Your task to perform on an android device: uninstall "Google Home" Image 0: 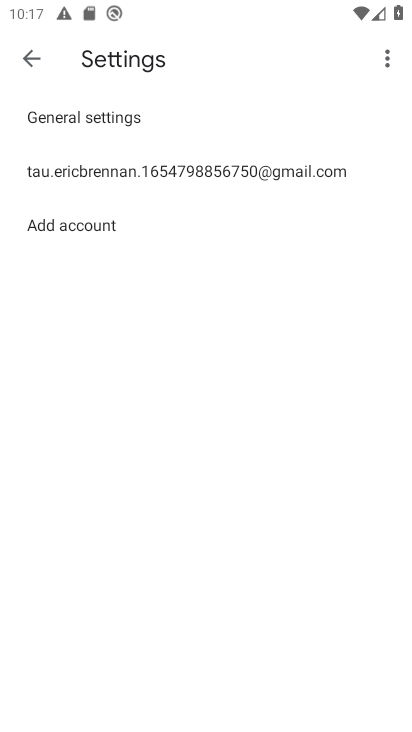
Step 0: press home button
Your task to perform on an android device: uninstall "Google Home" Image 1: 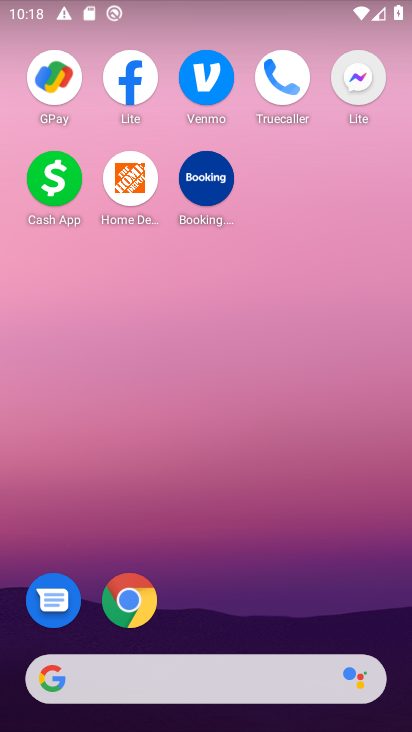
Step 1: drag from (203, 575) to (206, 247)
Your task to perform on an android device: uninstall "Google Home" Image 2: 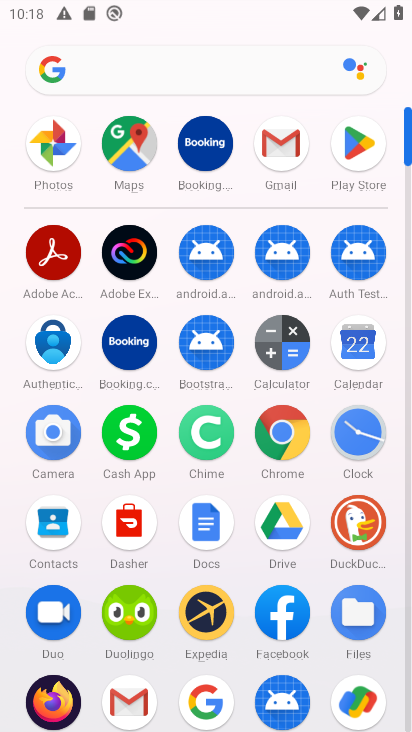
Step 2: click (347, 146)
Your task to perform on an android device: uninstall "Google Home" Image 3: 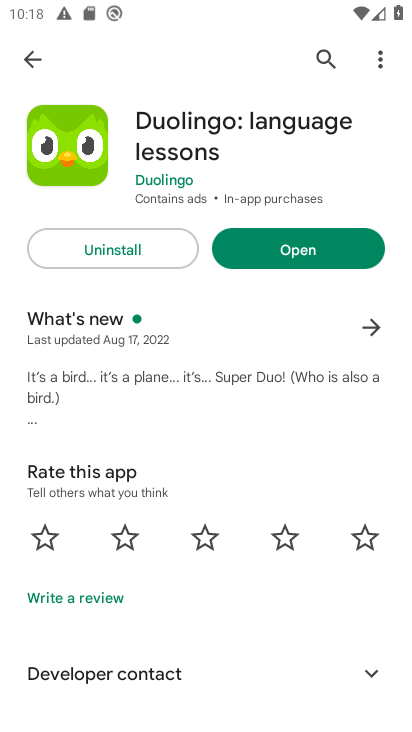
Step 3: click (323, 53)
Your task to perform on an android device: uninstall "Google Home" Image 4: 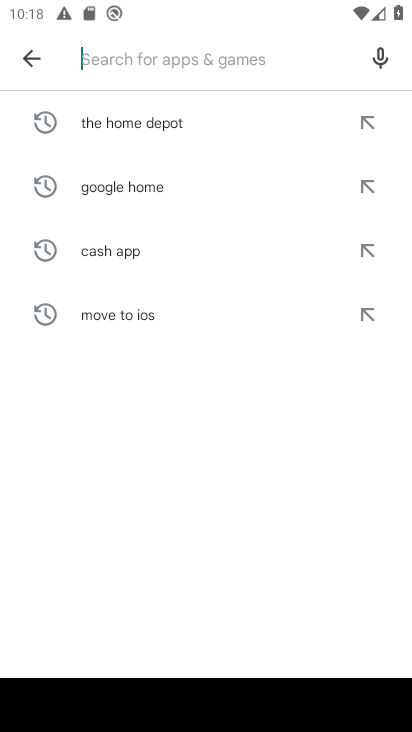
Step 4: type "Google Home"
Your task to perform on an android device: uninstall "Google Home" Image 5: 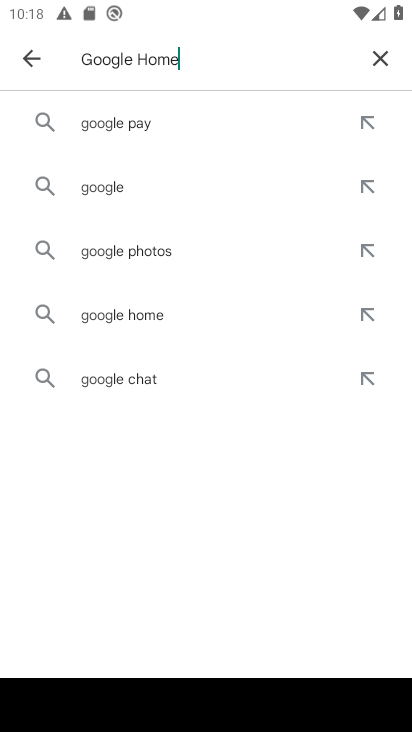
Step 5: type ""
Your task to perform on an android device: uninstall "Google Home" Image 6: 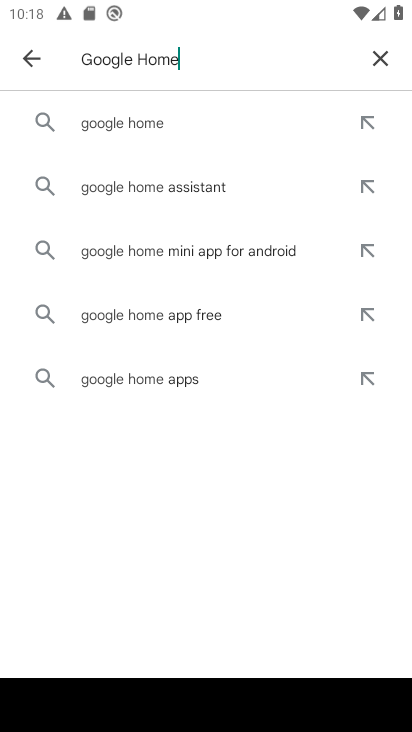
Step 6: click (187, 120)
Your task to perform on an android device: uninstall "Google Home" Image 7: 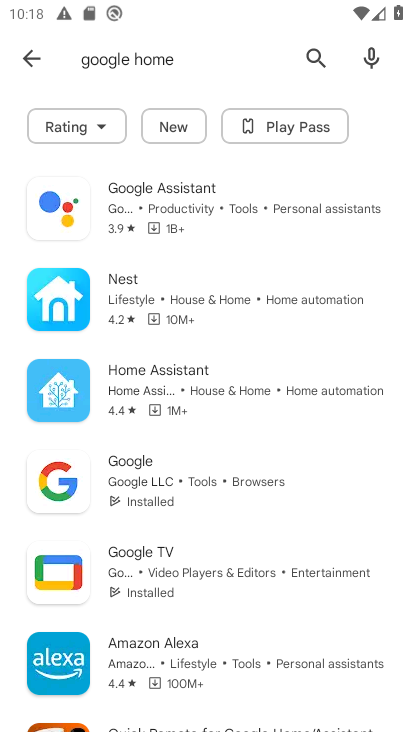
Step 7: task complete